Your task to perform on an android device: turn off data saver in the chrome app Image 0: 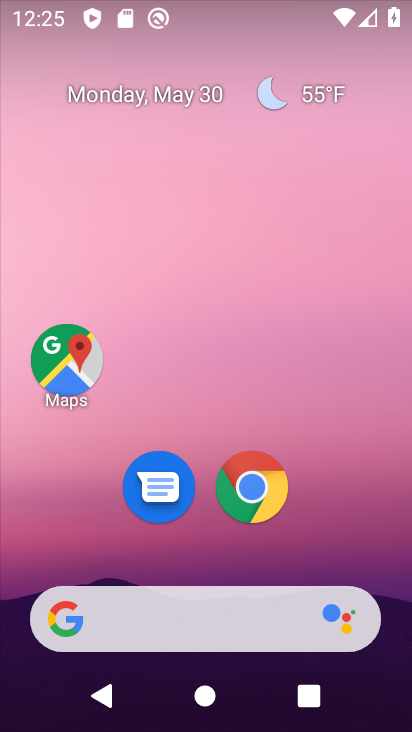
Step 0: click (262, 491)
Your task to perform on an android device: turn off data saver in the chrome app Image 1: 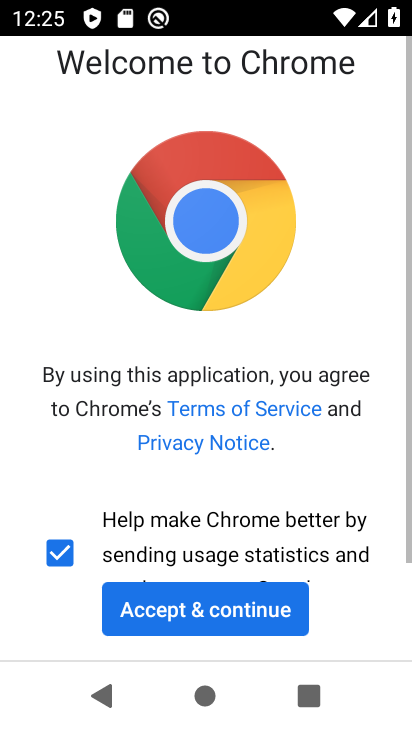
Step 1: click (263, 618)
Your task to perform on an android device: turn off data saver in the chrome app Image 2: 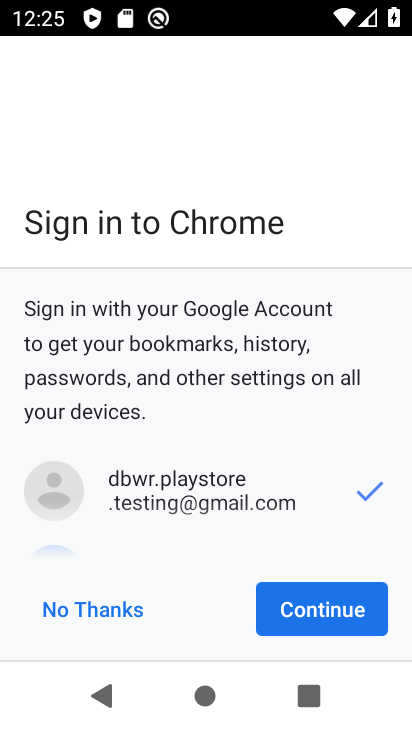
Step 2: click (316, 607)
Your task to perform on an android device: turn off data saver in the chrome app Image 3: 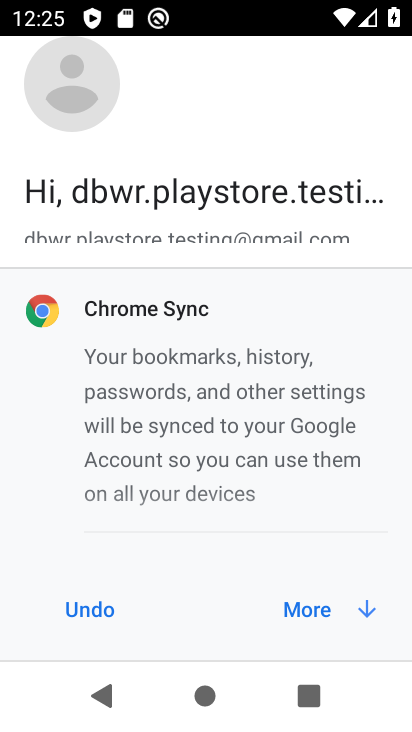
Step 3: click (353, 611)
Your task to perform on an android device: turn off data saver in the chrome app Image 4: 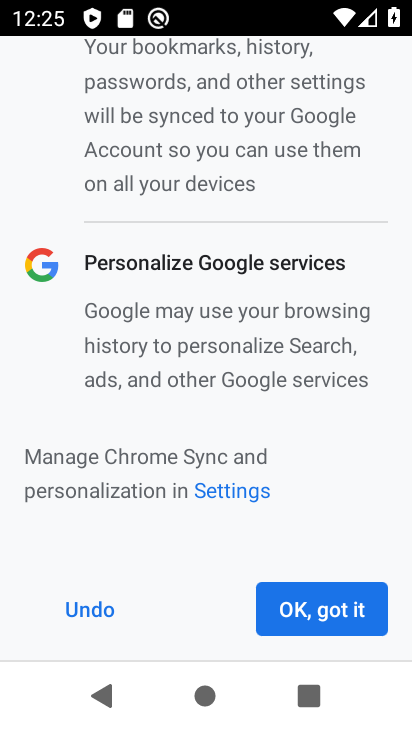
Step 4: click (352, 606)
Your task to perform on an android device: turn off data saver in the chrome app Image 5: 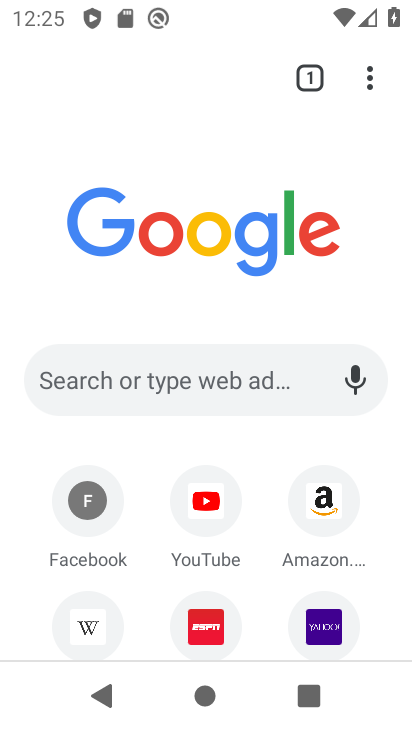
Step 5: drag from (365, 79) to (223, 622)
Your task to perform on an android device: turn off data saver in the chrome app Image 6: 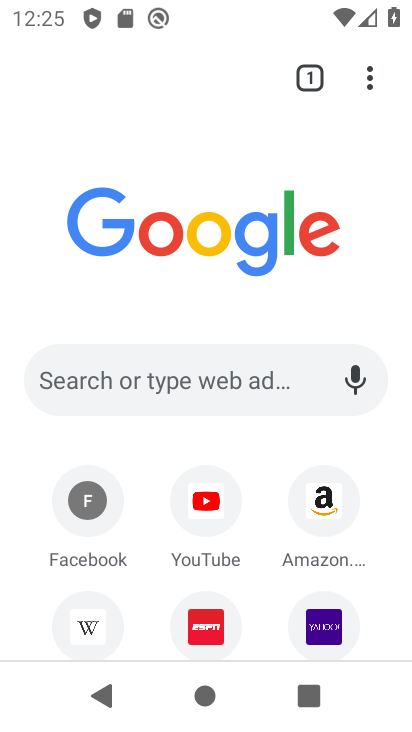
Step 6: drag from (221, 621) to (337, 189)
Your task to perform on an android device: turn off data saver in the chrome app Image 7: 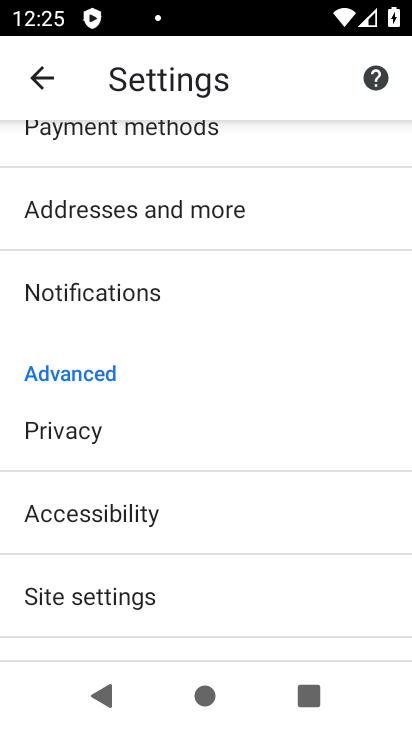
Step 7: drag from (188, 601) to (338, 216)
Your task to perform on an android device: turn off data saver in the chrome app Image 8: 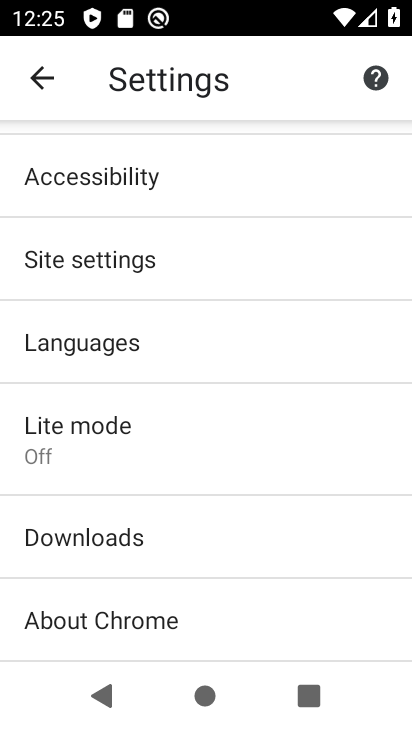
Step 8: drag from (191, 616) to (292, 148)
Your task to perform on an android device: turn off data saver in the chrome app Image 9: 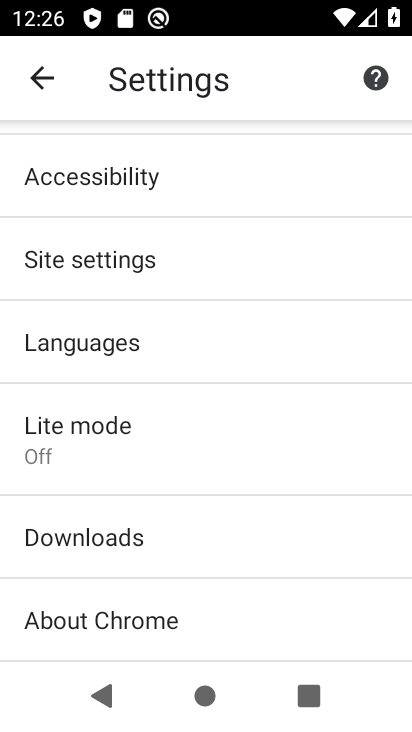
Step 9: drag from (174, 576) to (264, 167)
Your task to perform on an android device: turn off data saver in the chrome app Image 10: 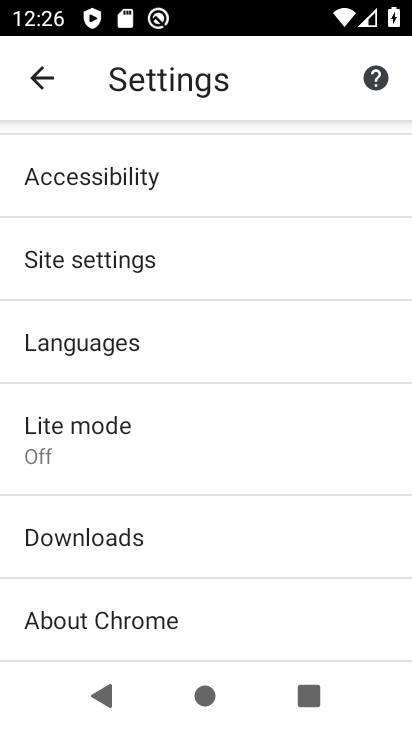
Step 10: click (158, 454)
Your task to perform on an android device: turn off data saver in the chrome app Image 11: 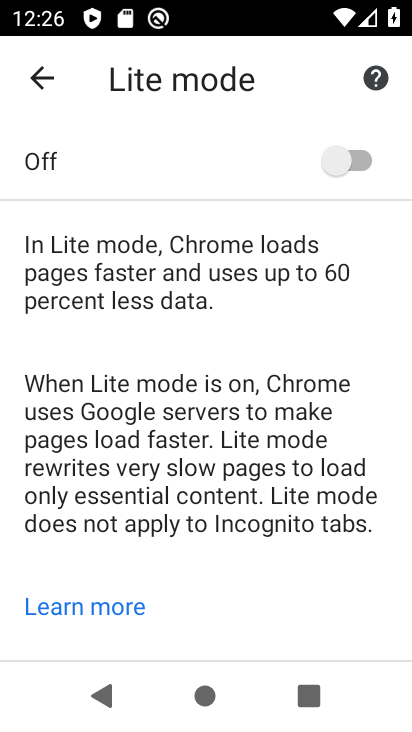
Step 11: task complete